Your task to perform on an android device: Open location settings Image 0: 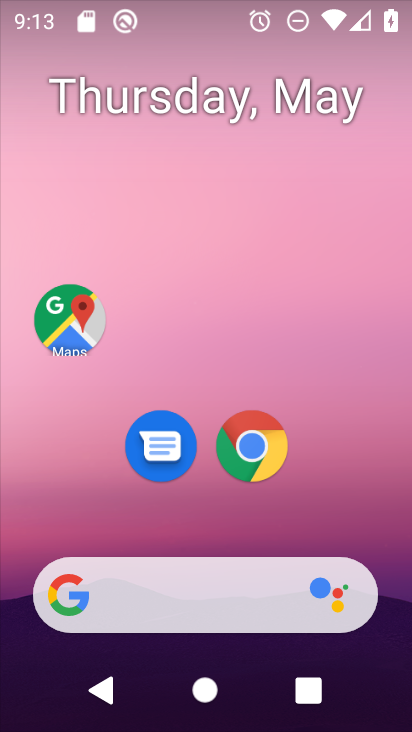
Step 0: drag from (320, 509) to (325, 142)
Your task to perform on an android device: Open location settings Image 1: 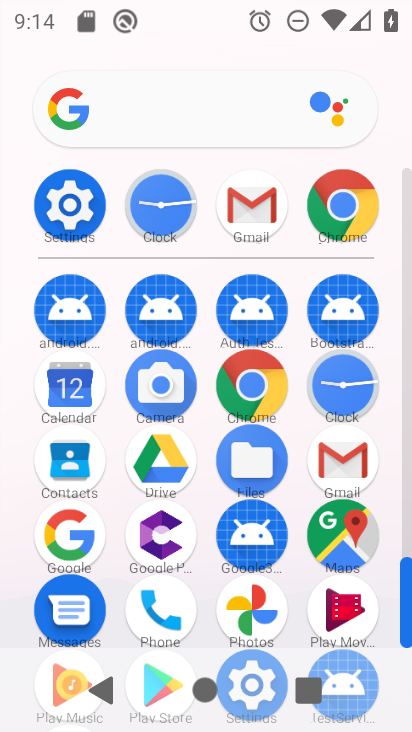
Step 1: click (68, 207)
Your task to perform on an android device: Open location settings Image 2: 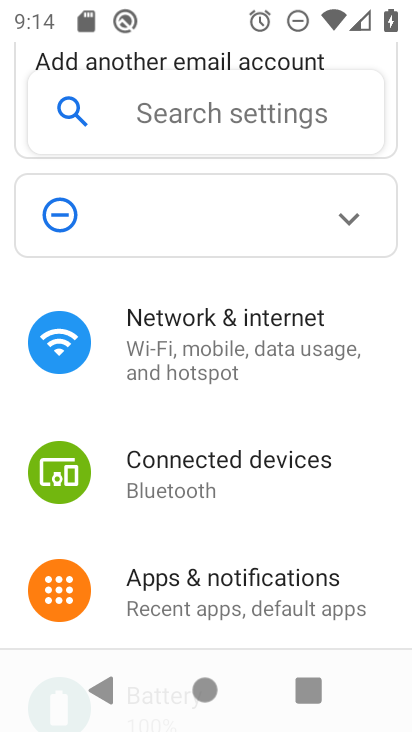
Step 2: drag from (293, 583) to (284, 310)
Your task to perform on an android device: Open location settings Image 3: 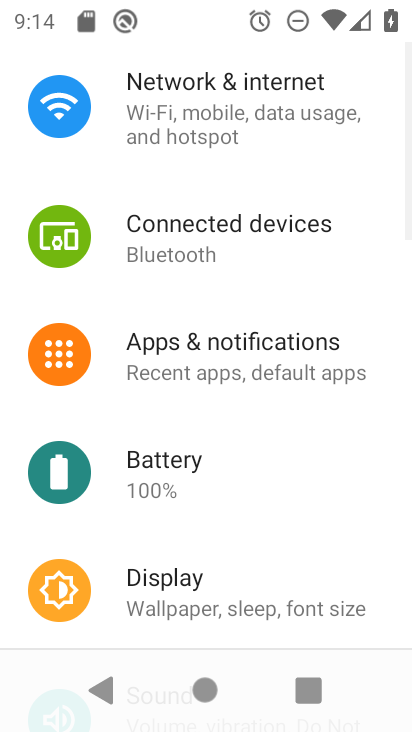
Step 3: drag from (286, 573) to (260, 216)
Your task to perform on an android device: Open location settings Image 4: 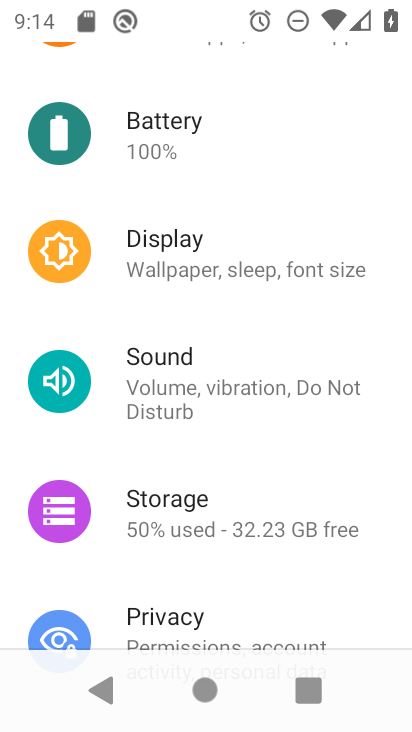
Step 4: drag from (273, 548) to (280, 236)
Your task to perform on an android device: Open location settings Image 5: 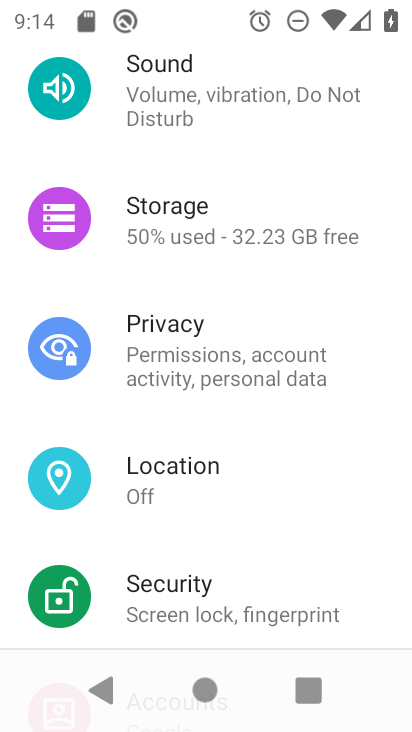
Step 5: click (175, 478)
Your task to perform on an android device: Open location settings Image 6: 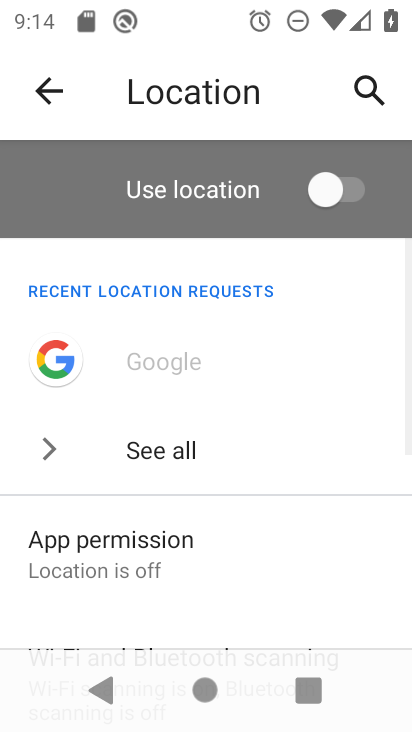
Step 6: task complete